Your task to perform on an android device: change notifications settings Image 0: 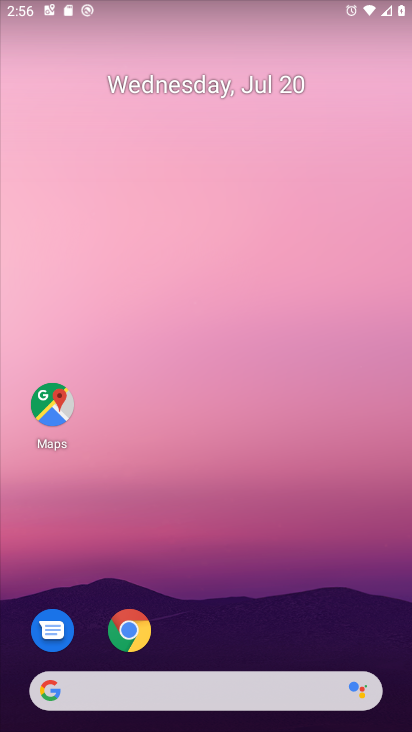
Step 0: drag from (231, 649) to (231, 61)
Your task to perform on an android device: change notifications settings Image 1: 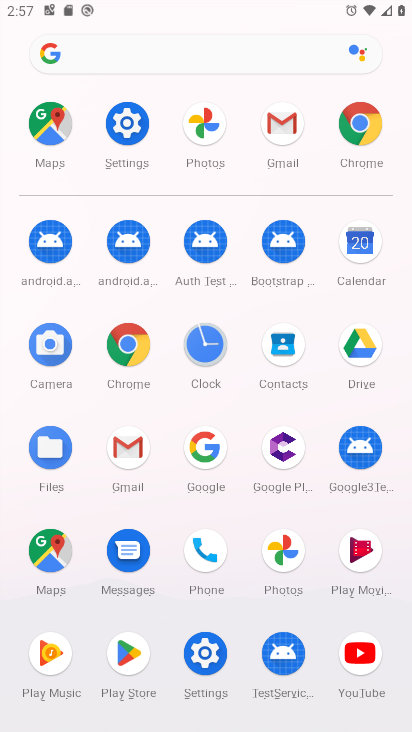
Step 1: click (129, 159)
Your task to perform on an android device: change notifications settings Image 2: 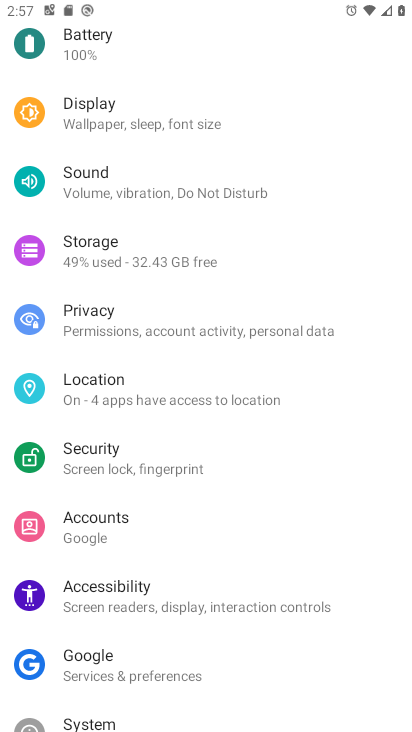
Step 2: drag from (138, 246) to (184, 688)
Your task to perform on an android device: change notifications settings Image 3: 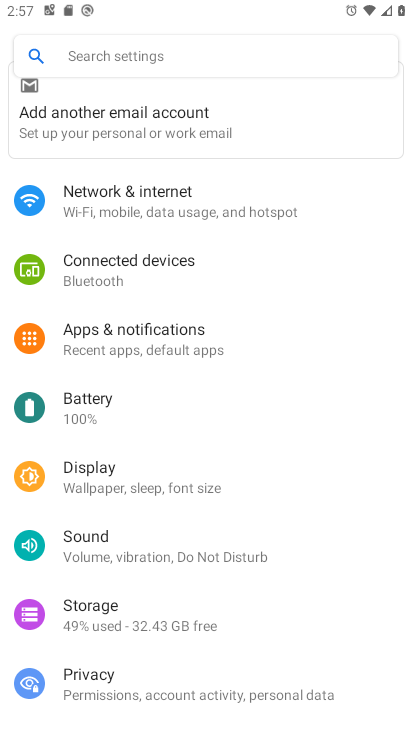
Step 3: click (158, 340)
Your task to perform on an android device: change notifications settings Image 4: 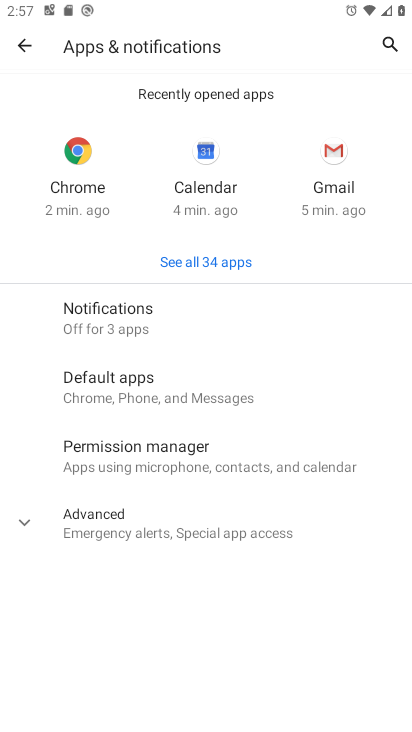
Step 4: click (154, 322)
Your task to perform on an android device: change notifications settings Image 5: 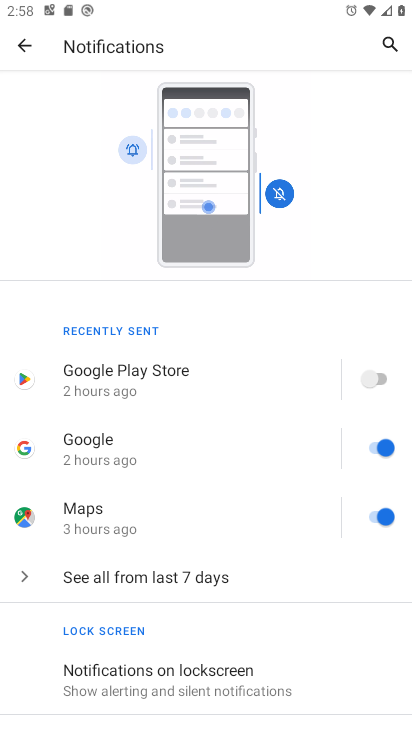
Step 5: click (378, 380)
Your task to perform on an android device: change notifications settings Image 6: 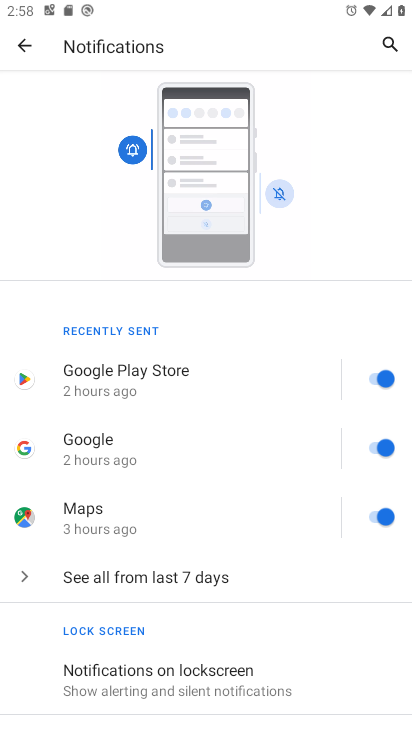
Step 6: task complete